Your task to perform on an android device: Open Google Chrome Image 0: 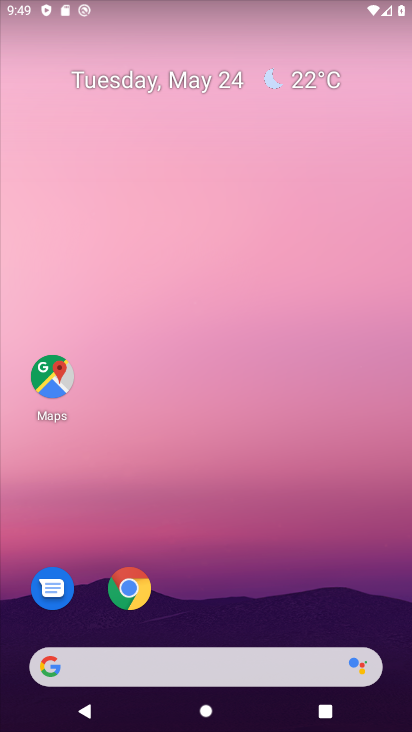
Step 0: click (131, 597)
Your task to perform on an android device: Open Google Chrome Image 1: 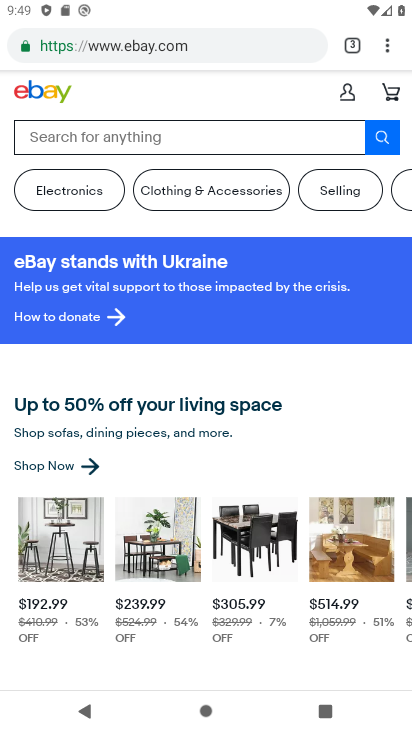
Step 1: task complete